Your task to perform on an android device: Open settings on Google Maps Image 0: 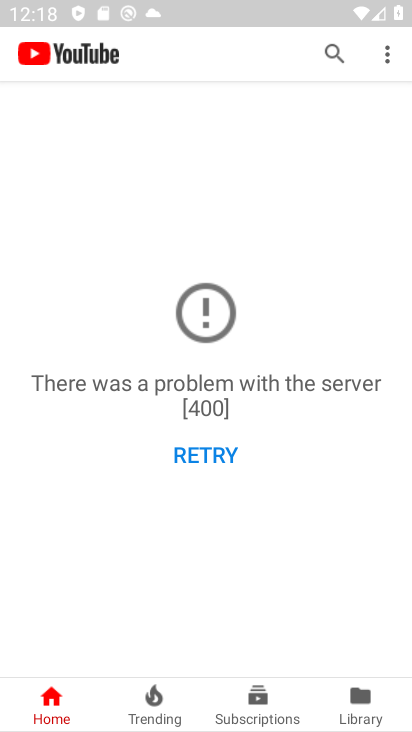
Step 0: press home button
Your task to perform on an android device: Open settings on Google Maps Image 1: 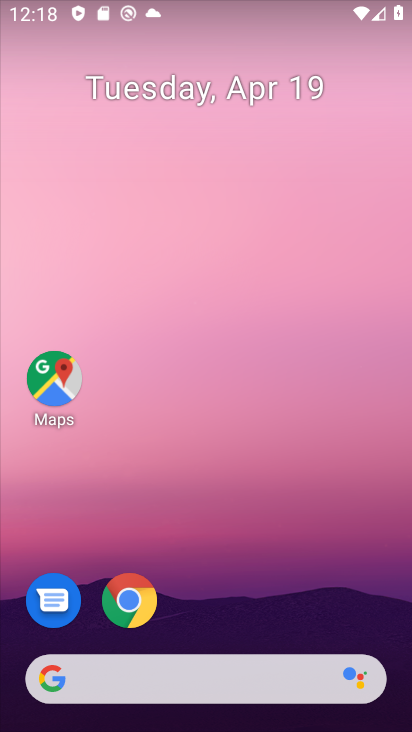
Step 1: drag from (227, 645) to (253, 26)
Your task to perform on an android device: Open settings on Google Maps Image 2: 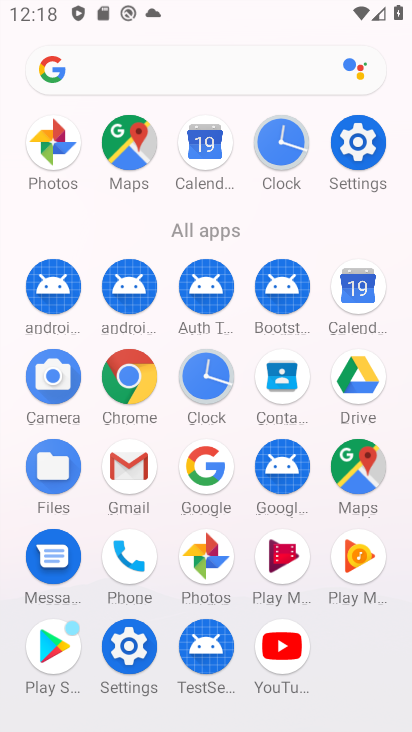
Step 2: click (360, 461)
Your task to perform on an android device: Open settings on Google Maps Image 3: 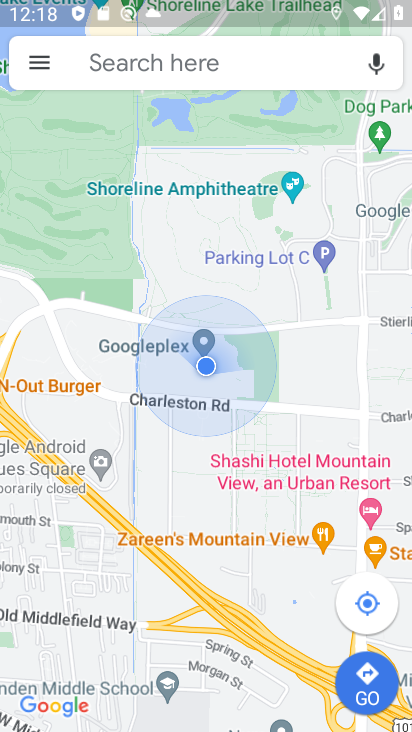
Step 3: click (37, 68)
Your task to perform on an android device: Open settings on Google Maps Image 4: 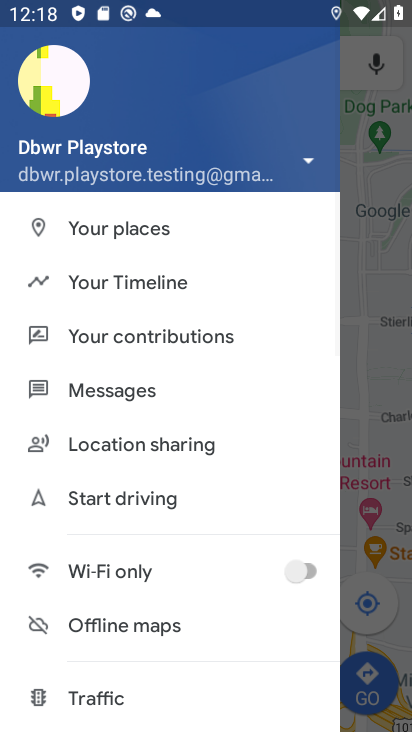
Step 4: drag from (125, 526) to (124, 139)
Your task to perform on an android device: Open settings on Google Maps Image 5: 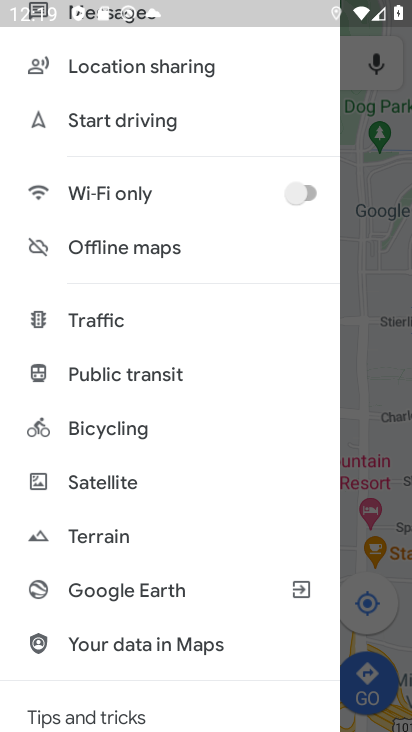
Step 5: drag from (110, 598) to (112, 82)
Your task to perform on an android device: Open settings on Google Maps Image 6: 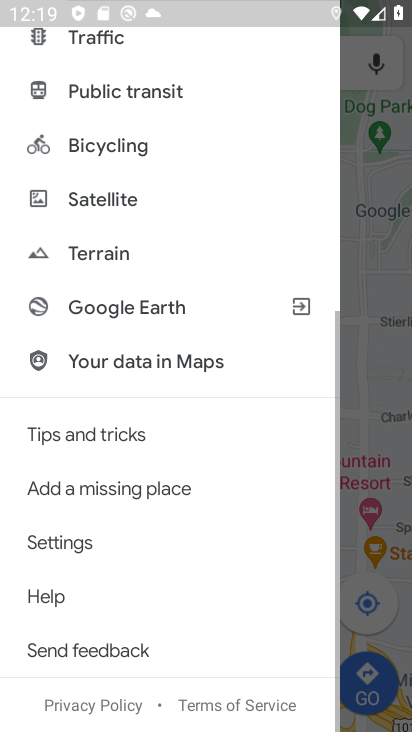
Step 6: click (82, 533)
Your task to perform on an android device: Open settings on Google Maps Image 7: 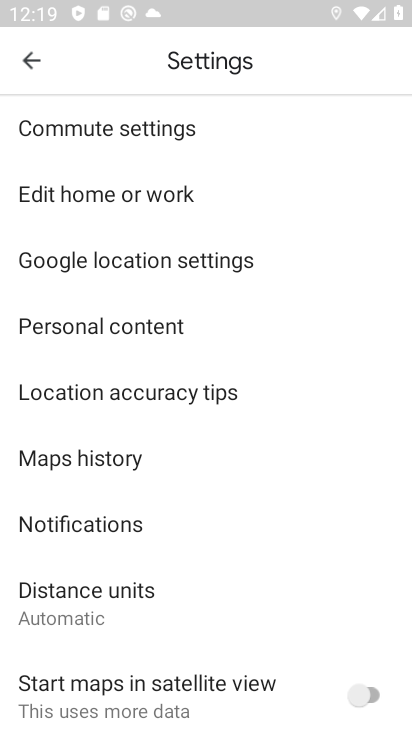
Step 7: task complete